Your task to perform on an android device: check the backup settings in the google photos Image 0: 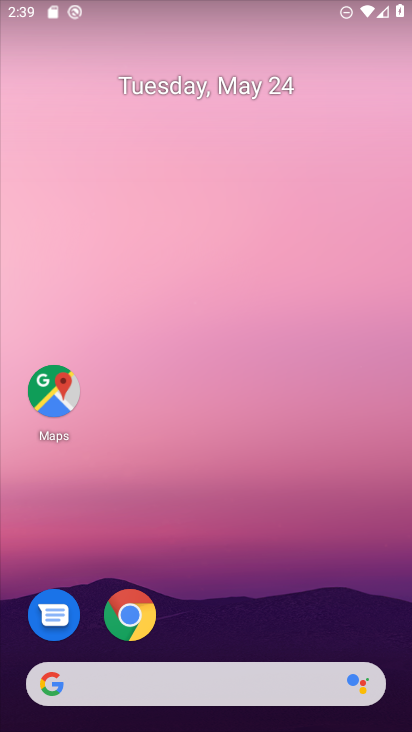
Step 0: drag from (211, 673) to (242, 160)
Your task to perform on an android device: check the backup settings in the google photos Image 1: 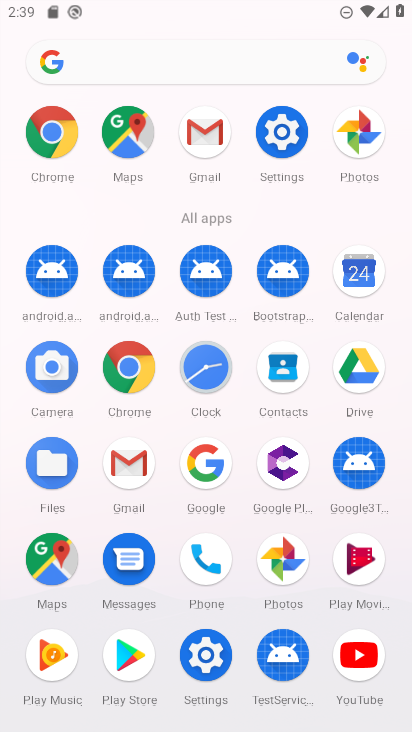
Step 1: click (287, 560)
Your task to perform on an android device: check the backup settings in the google photos Image 2: 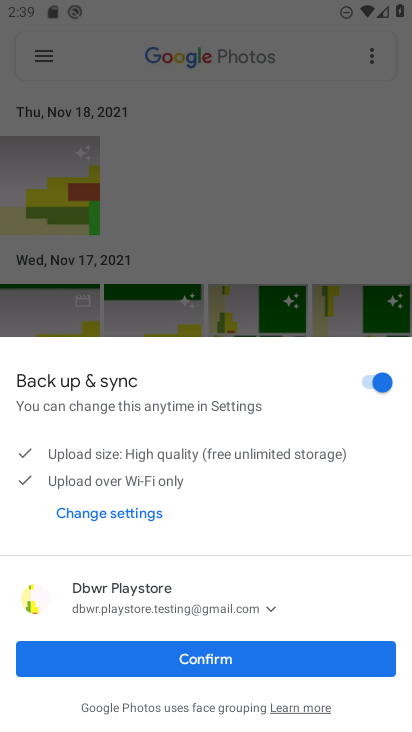
Step 2: click (207, 662)
Your task to perform on an android device: check the backup settings in the google photos Image 3: 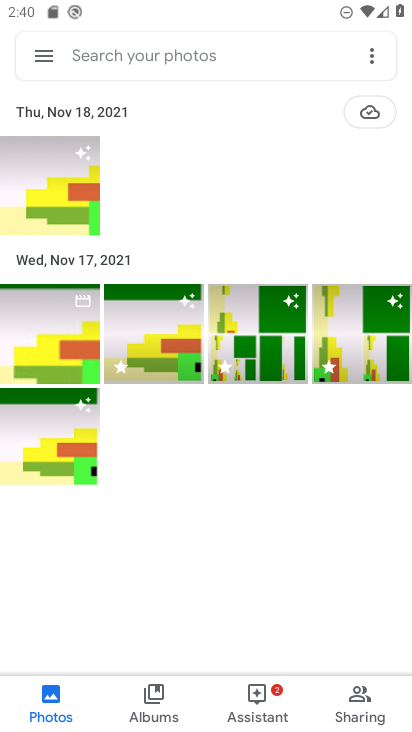
Step 3: click (39, 61)
Your task to perform on an android device: check the backup settings in the google photos Image 4: 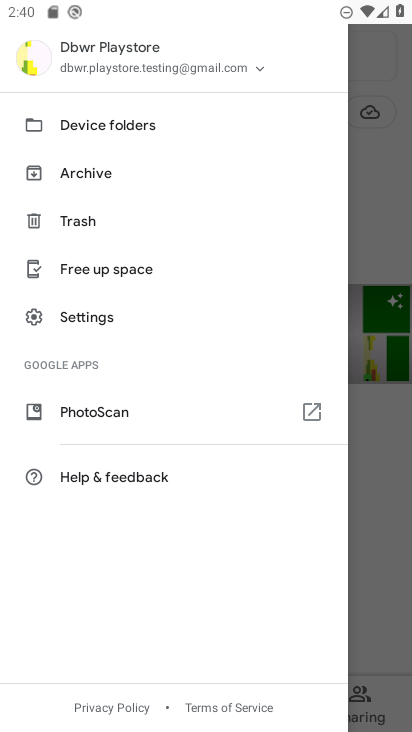
Step 4: click (105, 314)
Your task to perform on an android device: check the backup settings in the google photos Image 5: 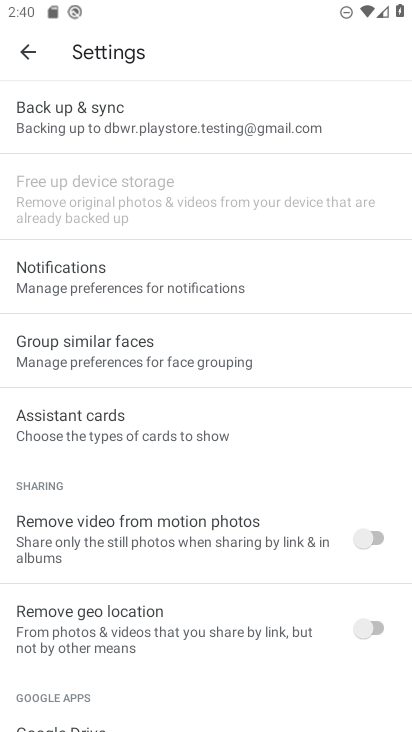
Step 5: click (80, 122)
Your task to perform on an android device: check the backup settings in the google photos Image 6: 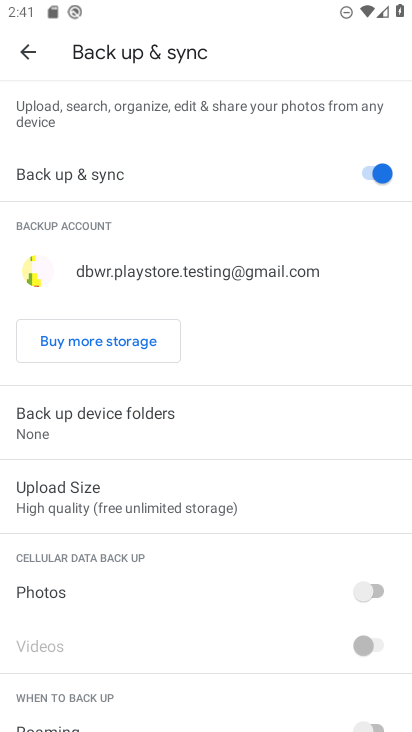
Step 6: task complete